Your task to perform on an android device: turn notification dots off Image 0: 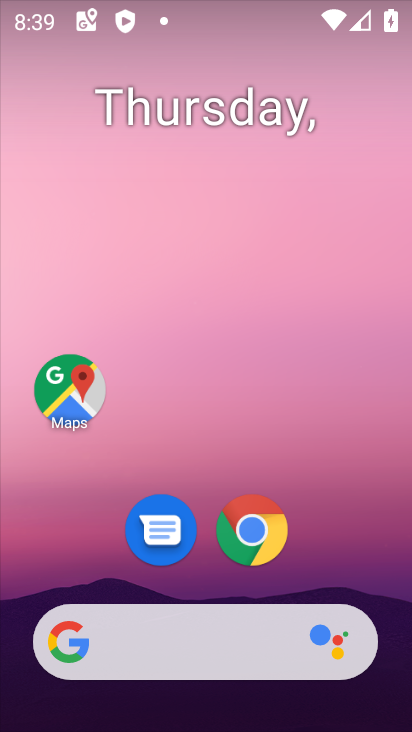
Step 0: drag from (184, 545) to (205, 112)
Your task to perform on an android device: turn notification dots off Image 1: 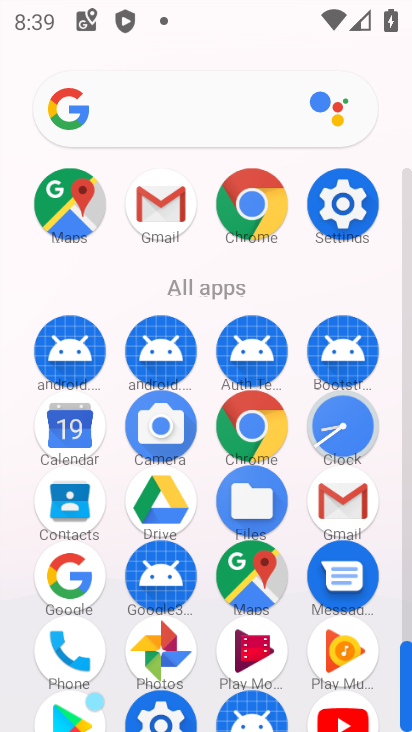
Step 1: click (347, 218)
Your task to perform on an android device: turn notification dots off Image 2: 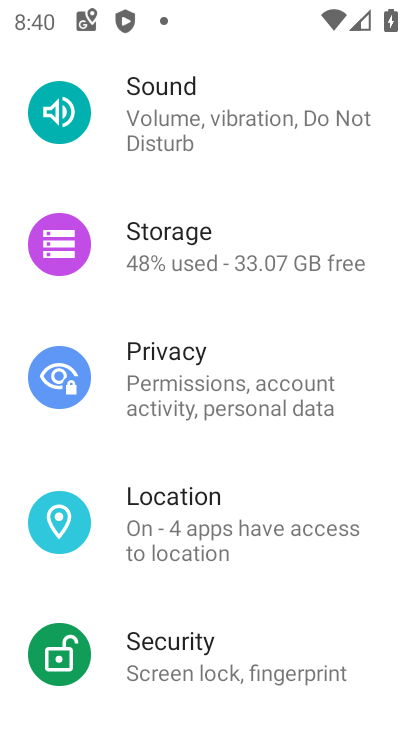
Step 2: drag from (302, 251) to (243, 720)
Your task to perform on an android device: turn notification dots off Image 3: 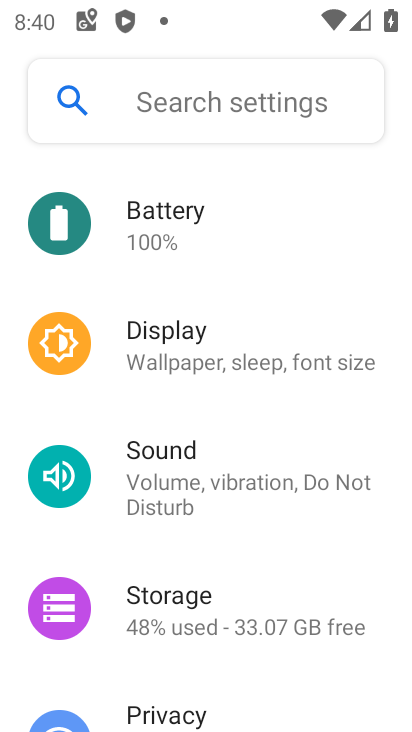
Step 3: drag from (230, 415) to (198, 723)
Your task to perform on an android device: turn notification dots off Image 4: 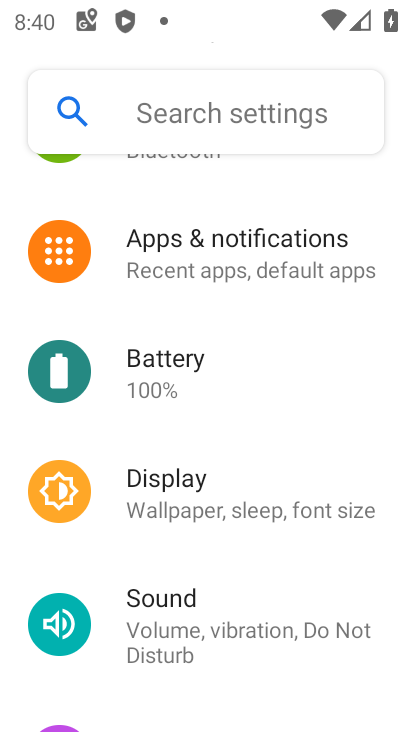
Step 4: click (257, 246)
Your task to perform on an android device: turn notification dots off Image 5: 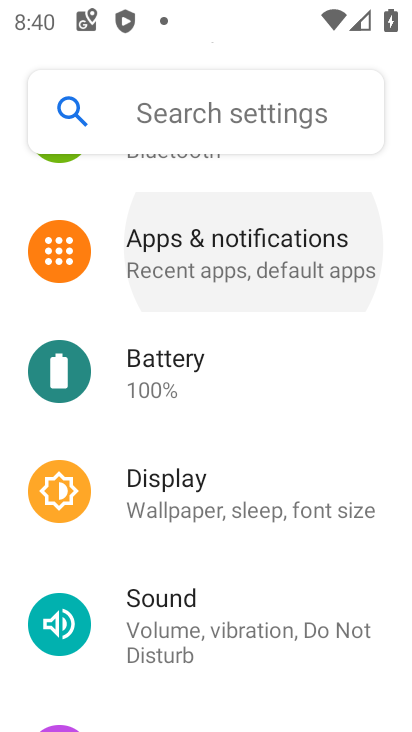
Step 5: click (256, 245)
Your task to perform on an android device: turn notification dots off Image 6: 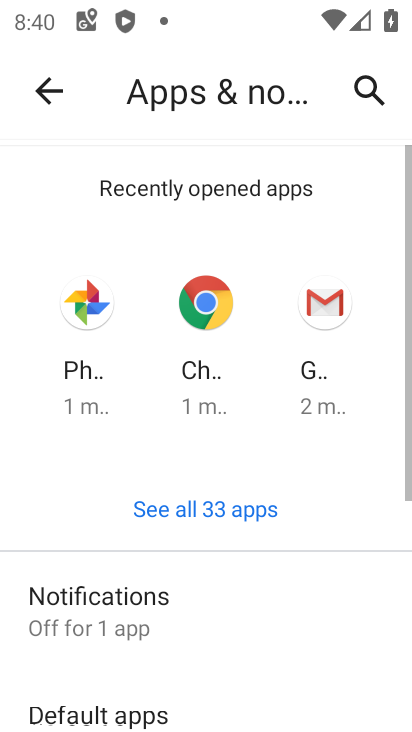
Step 6: click (215, 614)
Your task to perform on an android device: turn notification dots off Image 7: 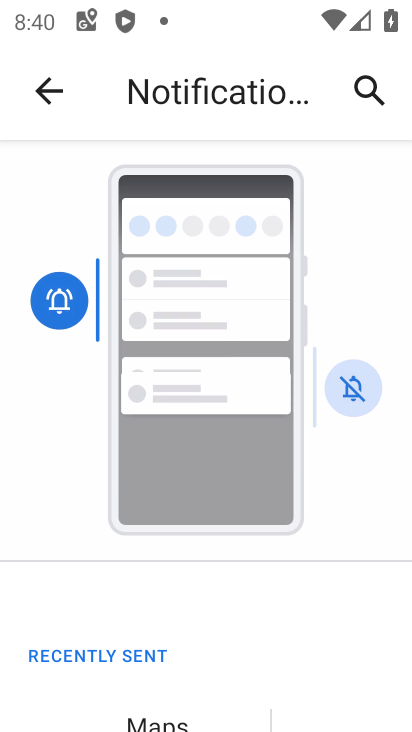
Step 7: drag from (168, 624) to (165, 147)
Your task to perform on an android device: turn notification dots off Image 8: 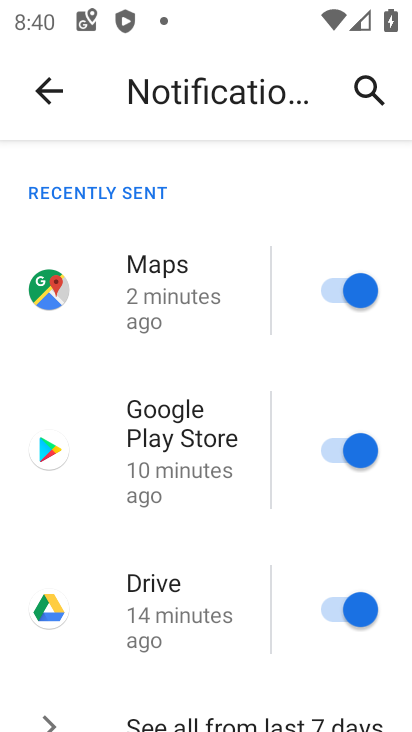
Step 8: drag from (196, 561) to (238, 27)
Your task to perform on an android device: turn notification dots off Image 9: 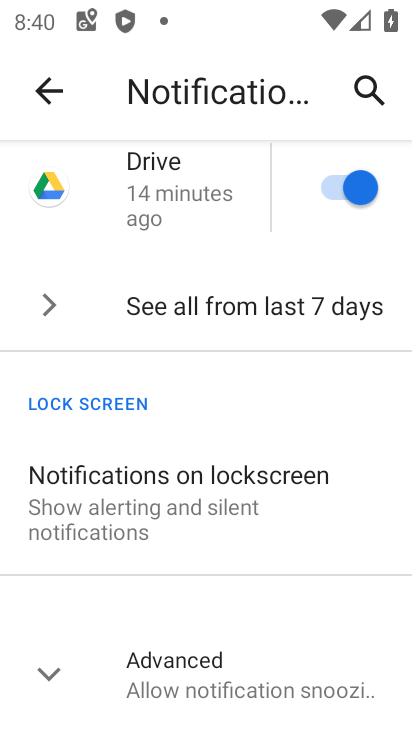
Step 9: click (233, 666)
Your task to perform on an android device: turn notification dots off Image 10: 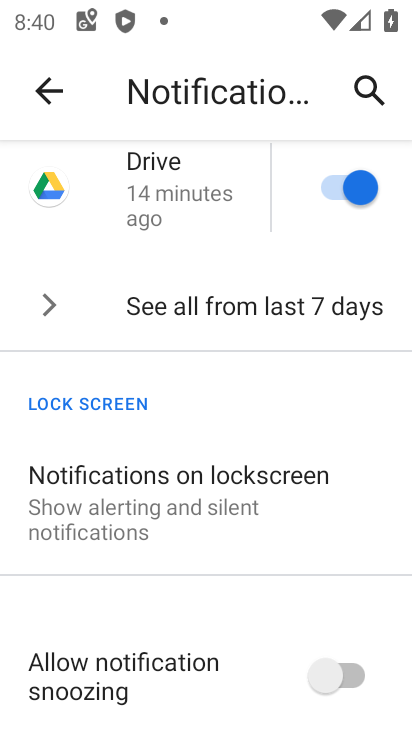
Step 10: drag from (235, 652) to (236, 66)
Your task to perform on an android device: turn notification dots off Image 11: 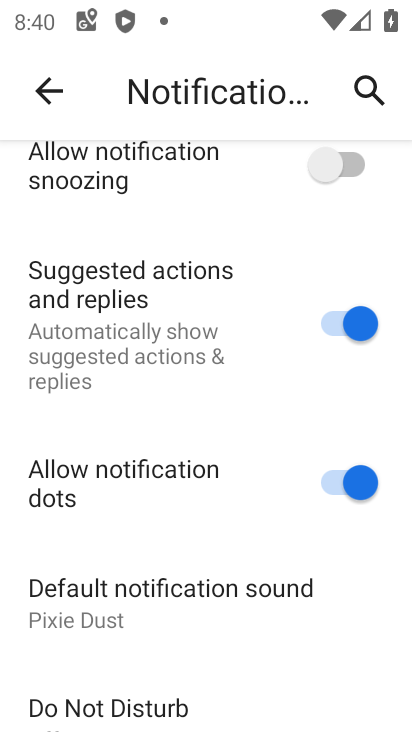
Step 11: click (342, 487)
Your task to perform on an android device: turn notification dots off Image 12: 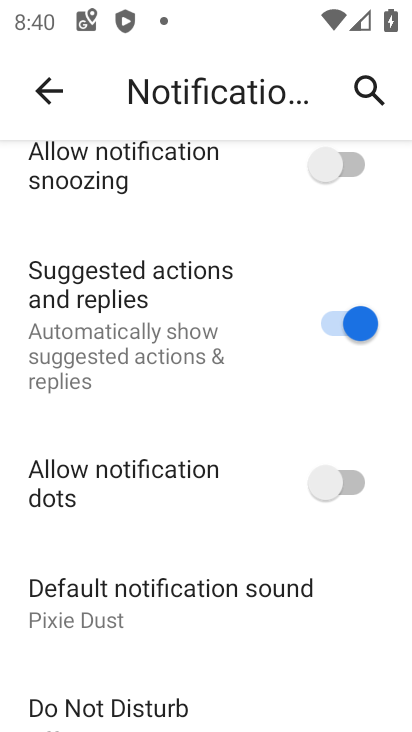
Step 12: press home button
Your task to perform on an android device: turn notification dots off Image 13: 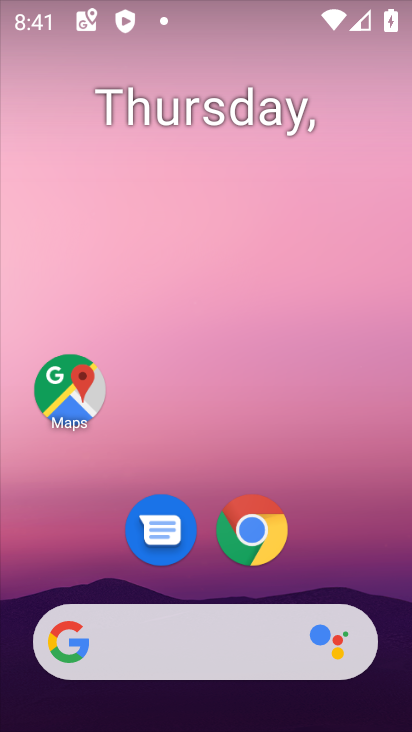
Step 13: drag from (295, 524) to (325, 134)
Your task to perform on an android device: turn notification dots off Image 14: 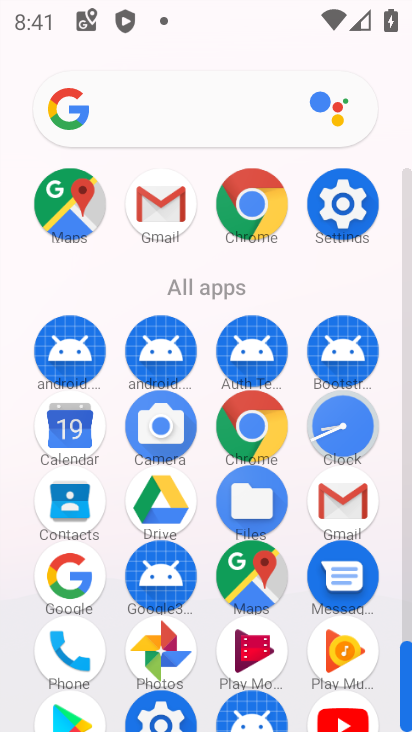
Step 14: click (336, 235)
Your task to perform on an android device: turn notification dots off Image 15: 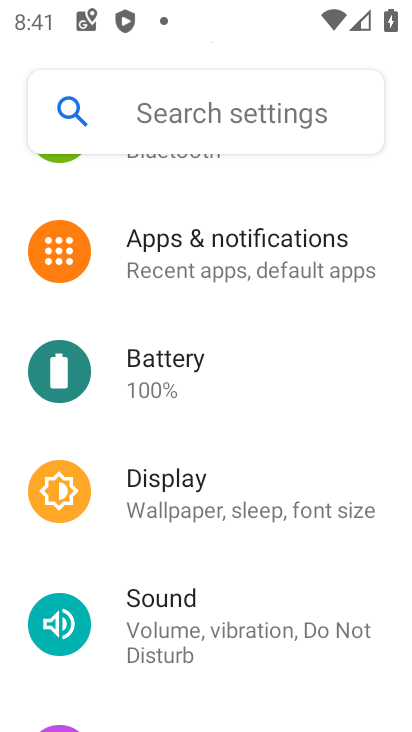
Step 15: task complete